Your task to perform on an android device: Add logitech g502 to the cart on ebay.com Image 0: 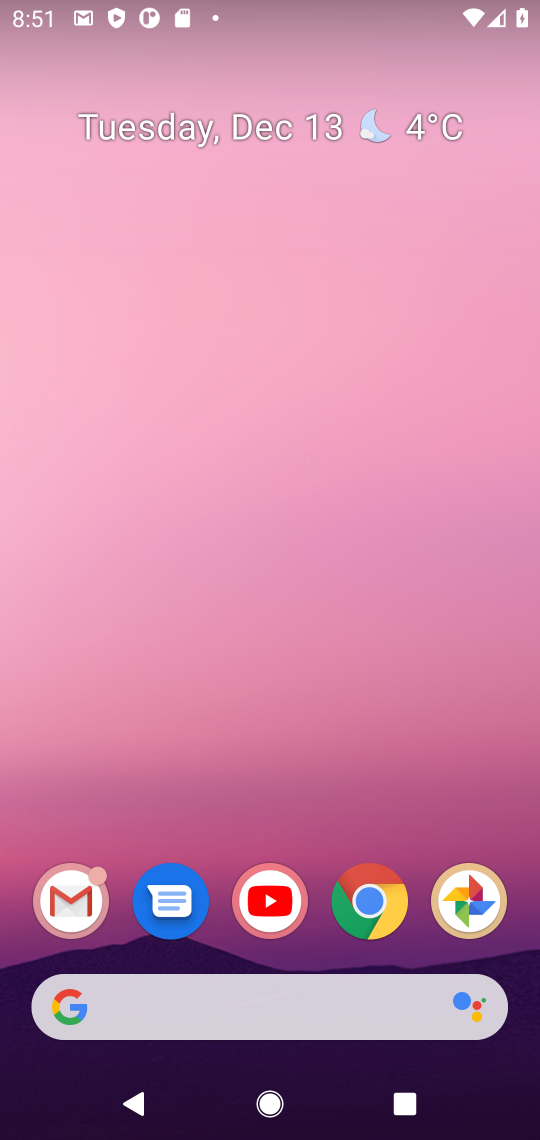
Step 0: click (372, 899)
Your task to perform on an android device: Add logitech g502 to the cart on ebay.com Image 1: 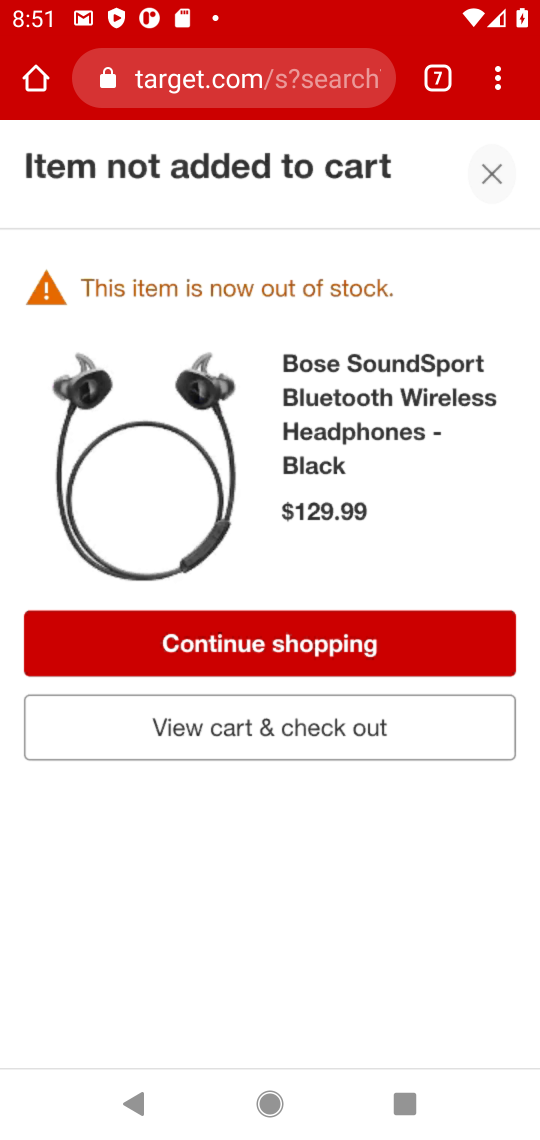
Step 1: click (439, 80)
Your task to perform on an android device: Add logitech g502 to the cart on ebay.com Image 2: 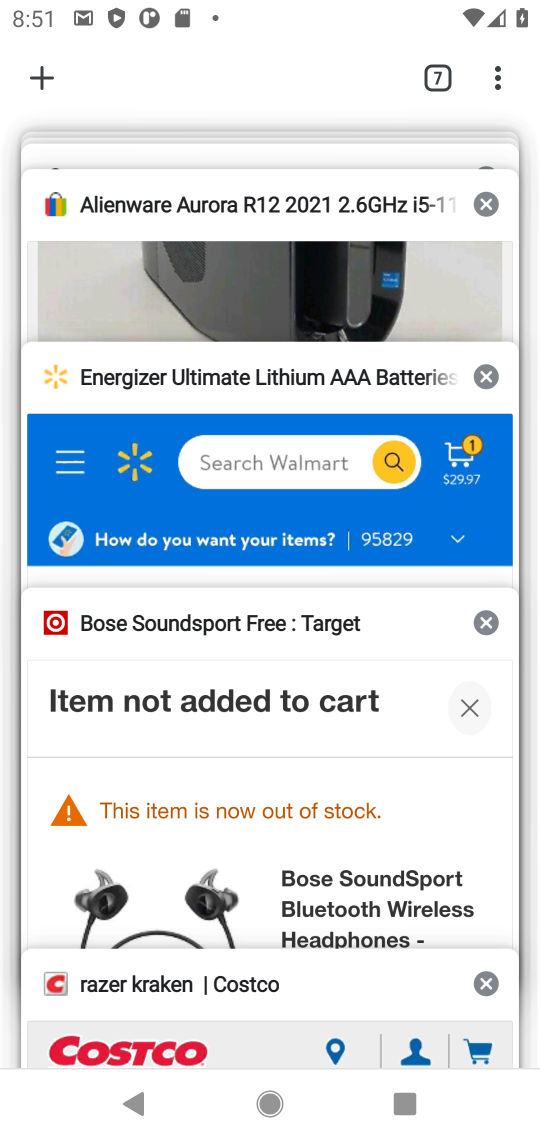
Step 2: click (328, 214)
Your task to perform on an android device: Add logitech g502 to the cart on ebay.com Image 3: 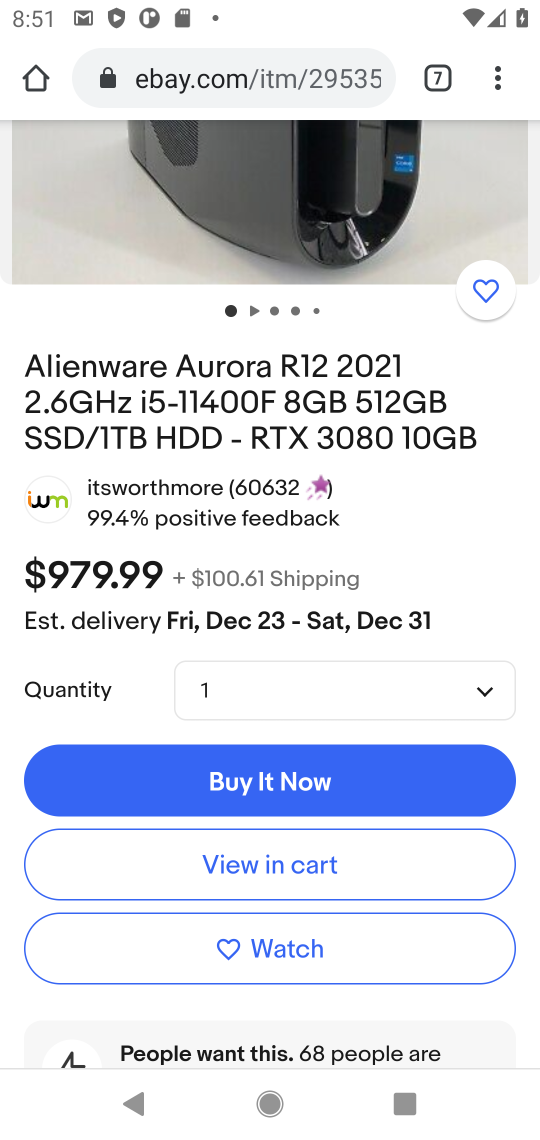
Step 3: click (280, 868)
Your task to perform on an android device: Add logitech g502 to the cart on ebay.com Image 4: 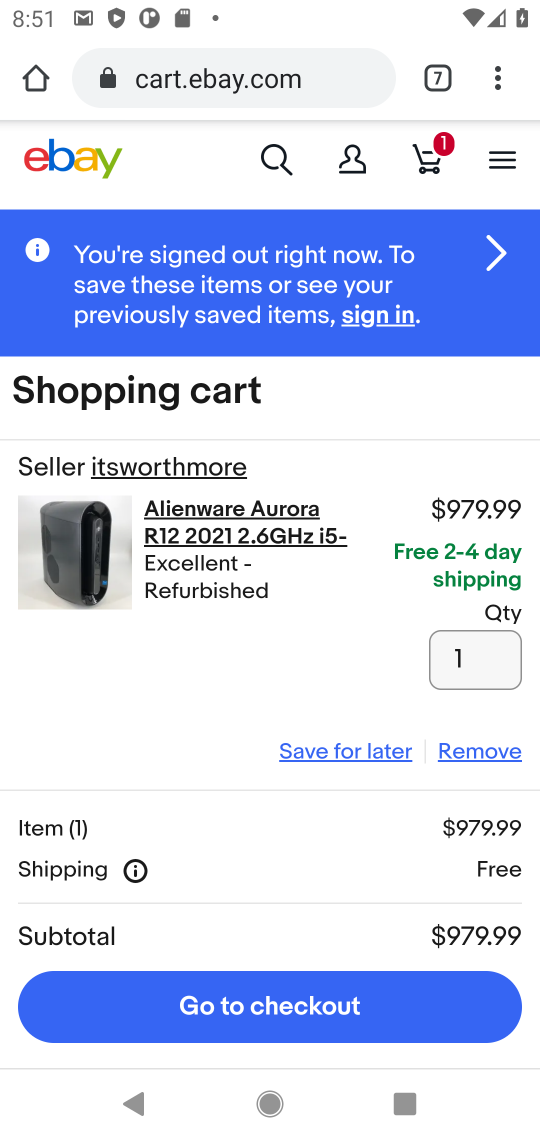
Step 4: click (272, 152)
Your task to perform on an android device: Add logitech g502 to the cart on ebay.com Image 5: 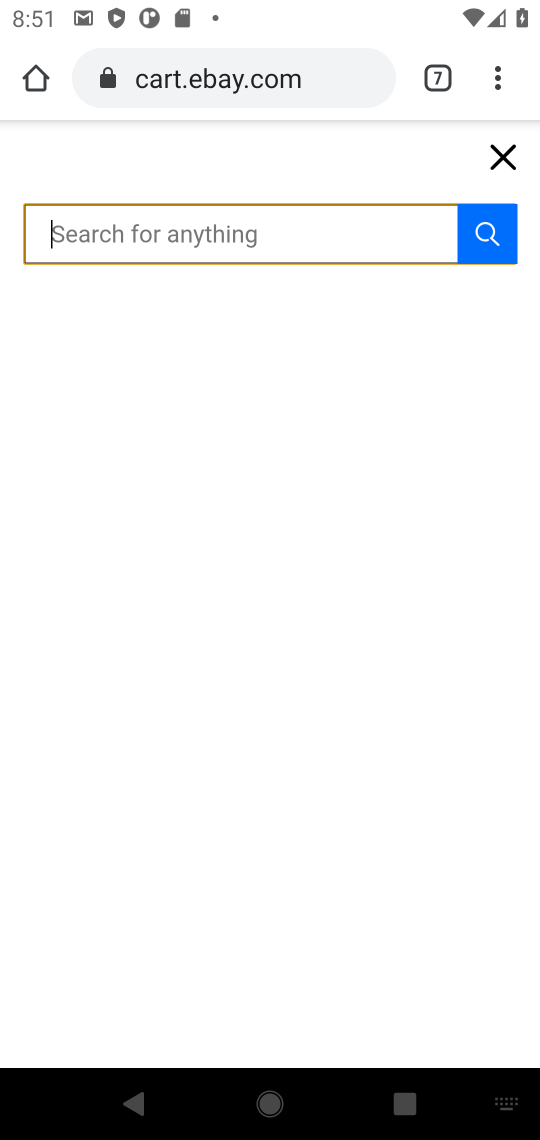
Step 5: type "logitech g502 "
Your task to perform on an android device: Add logitech g502 to the cart on ebay.com Image 6: 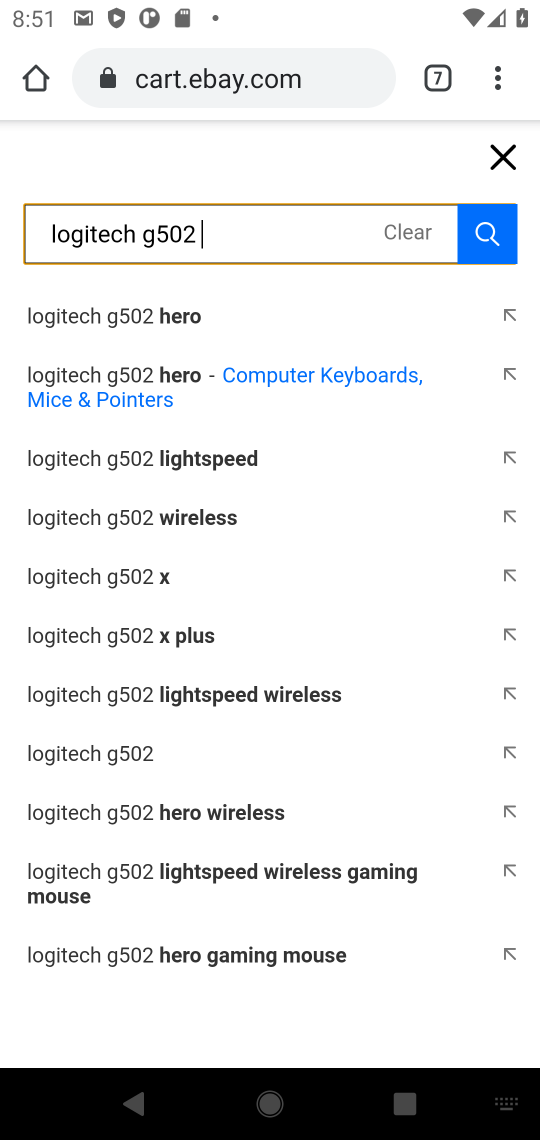
Step 6: click (147, 372)
Your task to perform on an android device: Add logitech g502 to the cart on ebay.com Image 7: 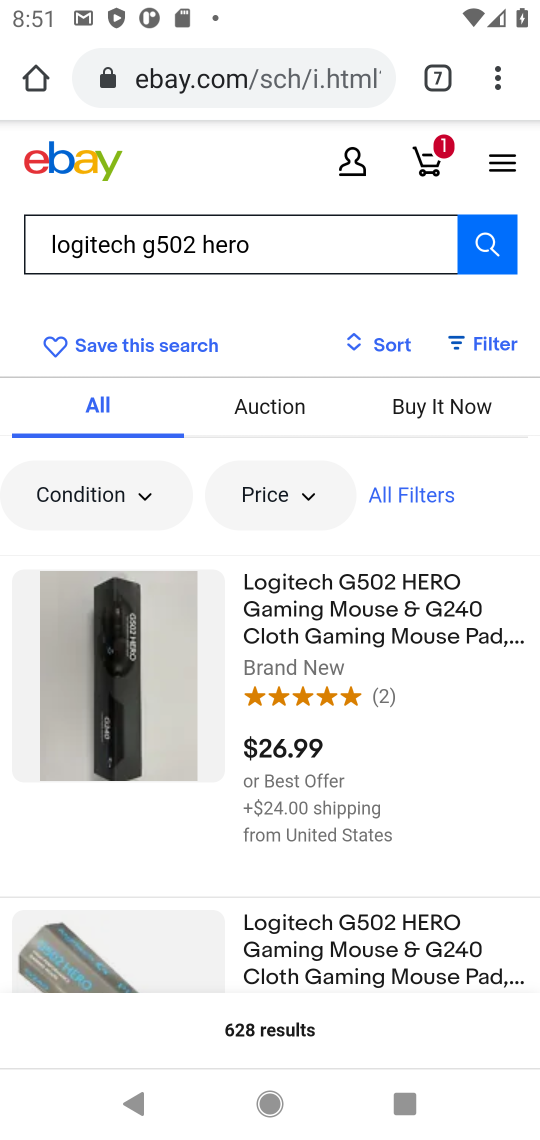
Step 7: click (299, 612)
Your task to perform on an android device: Add logitech g502 to the cart on ebay.com Image 8: 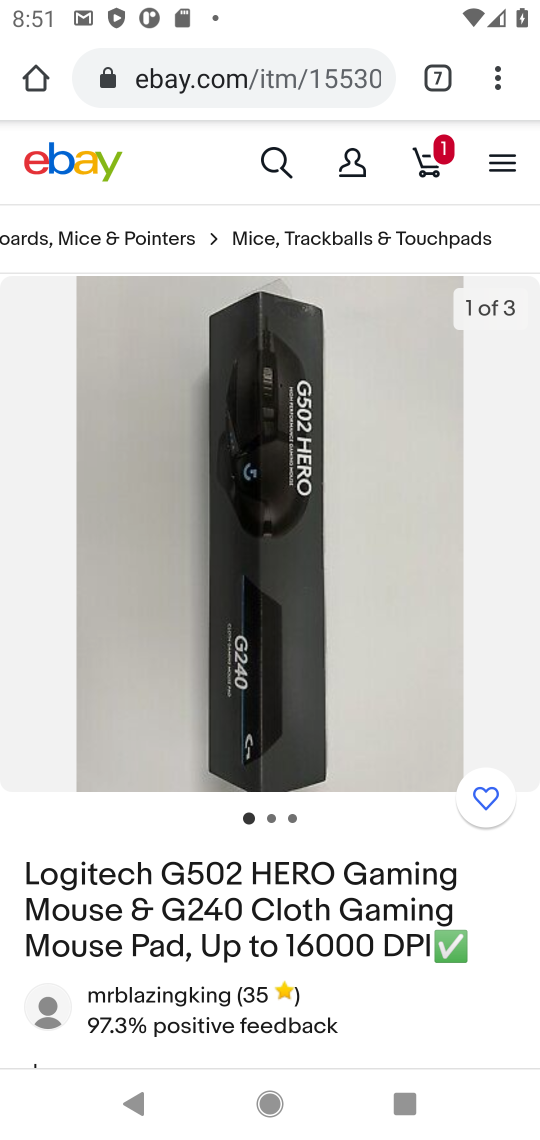
Step 8: drag from (340, 1004) to (429, 360)
Your task to perform on an android device: Add logitech g502 to the cart on ebay.com Image 9: 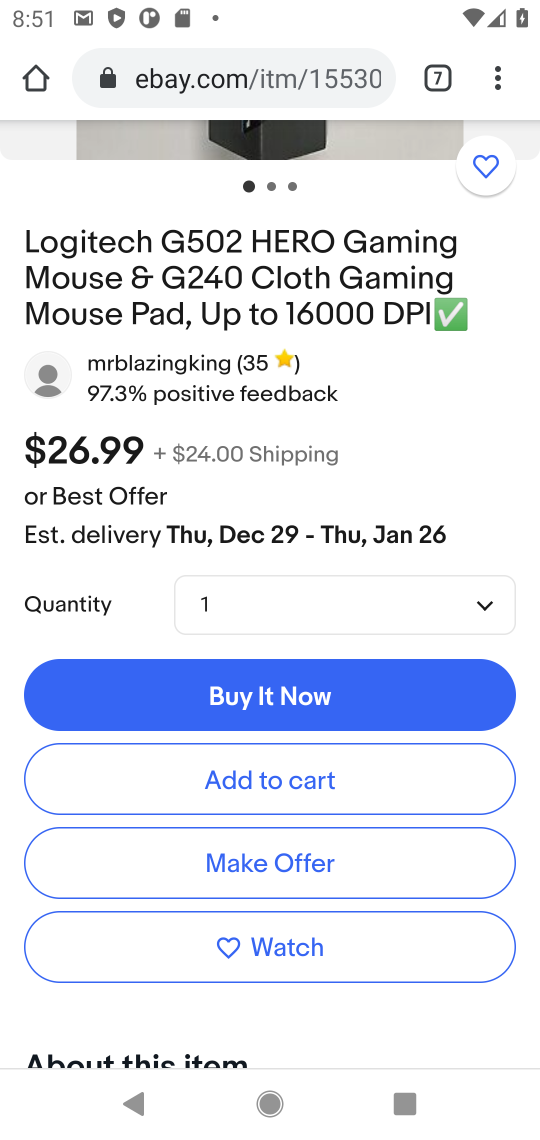
Step 9: click (339, 776)
Your task to perform on an android device: Add logitech g502 to the cart on ebay.com Image 10: 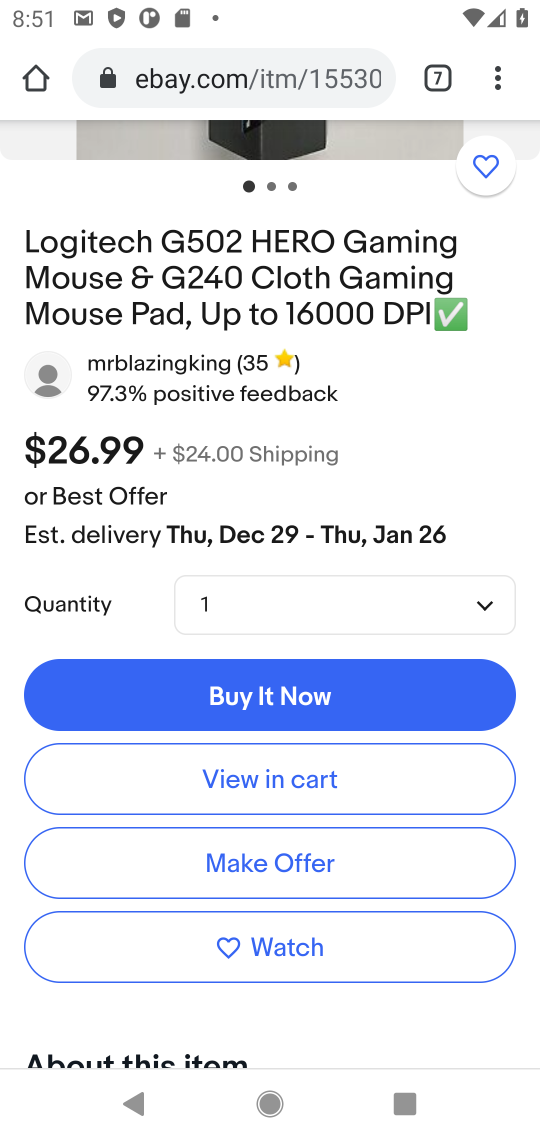
Step 10: task complete